Your task to perform on an android device: turn off data saver in the chrome app Image 0: 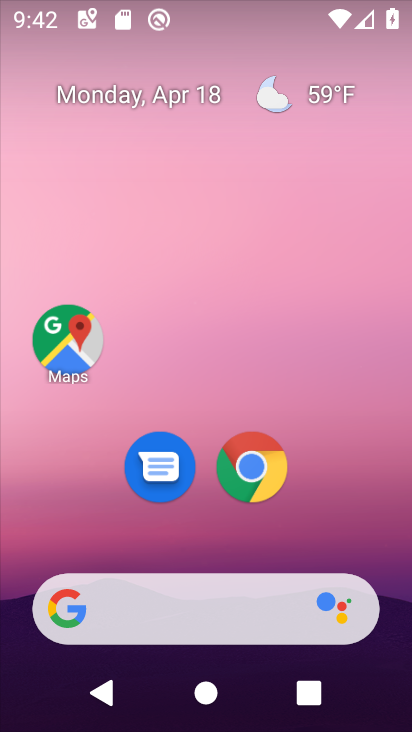
Step 0: click (263, 453)
Your task to perform on an android device: turn off data saver in the chrome app Image 1: 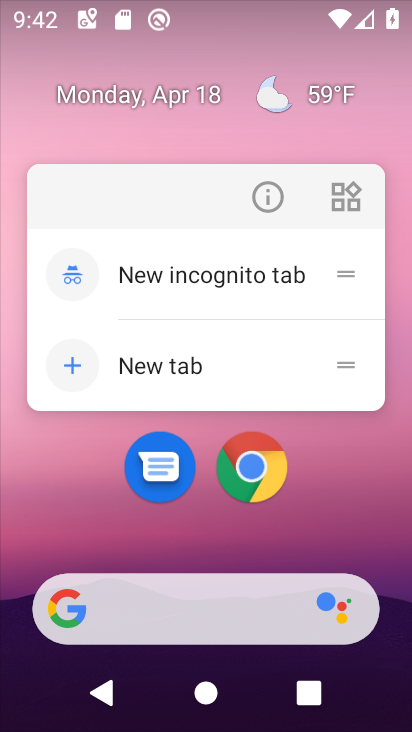
Step 1: click (252, 444)
Your task to perform on an android device: turn off data saver in the chrome app Image 2: 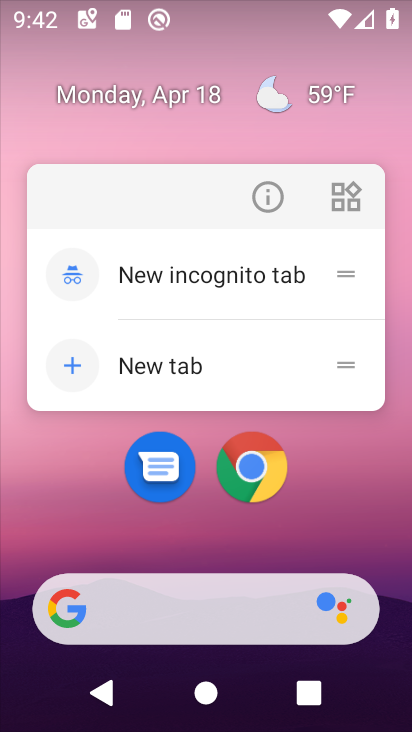
Step 2: click (264, 475)
Your task to perform on an android device: turn off data saver in the chrome app Image 3: 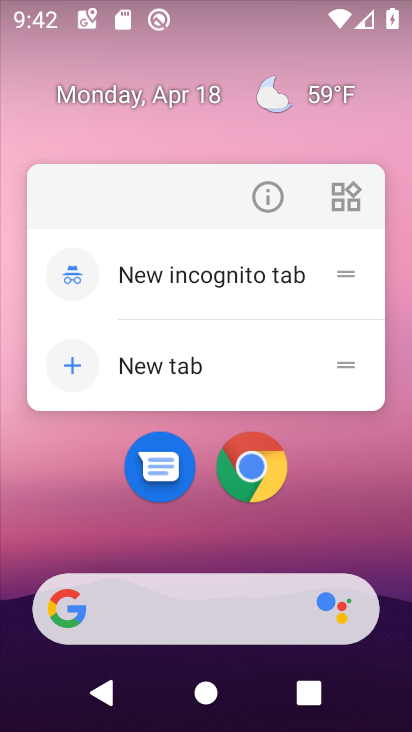
Step 3: click (252, 458)
Your task to perform on an android device: turn off data saver in the chrome app Image 4: 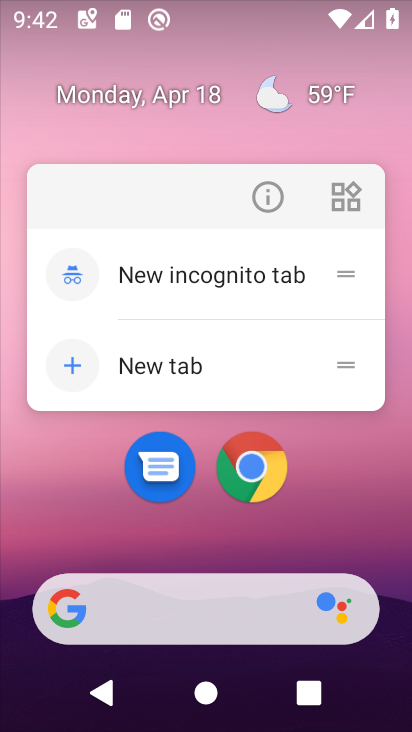
Step 4: click (266, 475)
Your task to perform on an android device: turn off data saver in the chrome app Image 5: 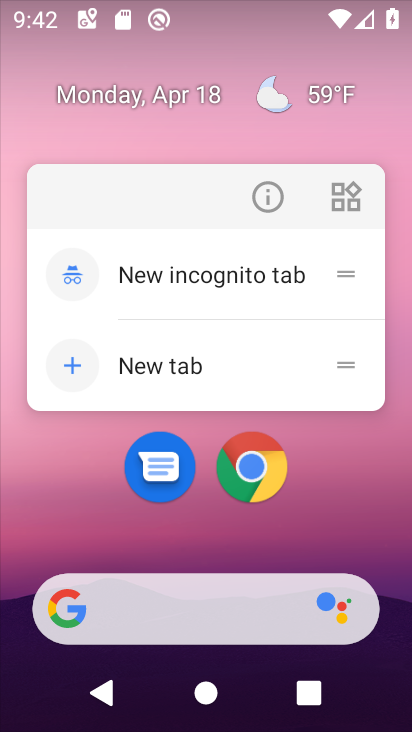
Step 5: click (254, 460)
Your task to perform on an android device: turn off data saver in the chrome app Image 6: 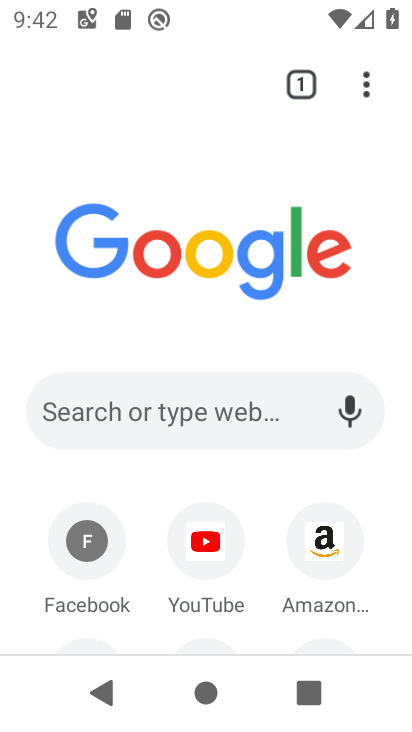
Step 6: drag from (364, 82) to (151, 505)
Your task to perform on an android device: turn off data saver in the chrome app Image 7: 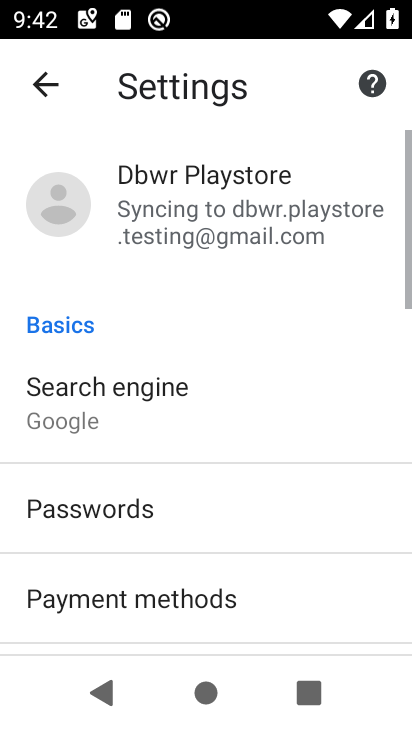
Step 7: drag from (171, 581) to (296, 79)
Your task to perform on an android device: turn off data saver in the chrome app Image 8: 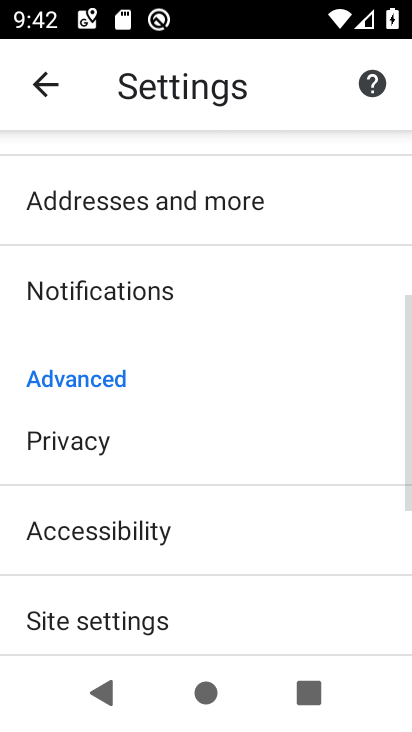
Step 8: drag from (206, 566) to (281, 202)
Your task to perform on an android device: turn off data saver in the chrome app Image 9: 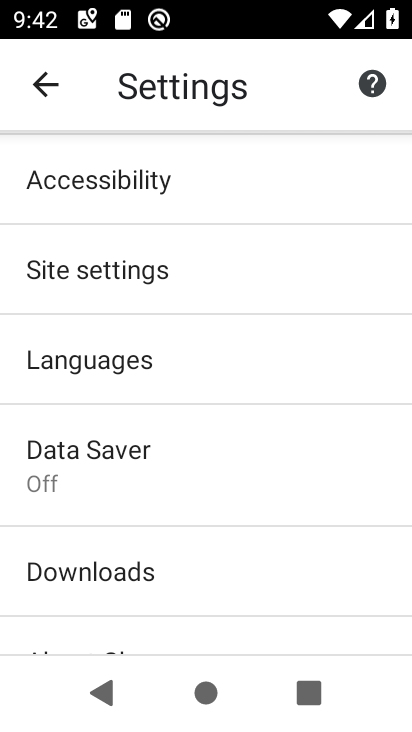
Step 9: click (90, 275)
Your task to perform on an android device: turn off data saver in the chrome app Image 10: 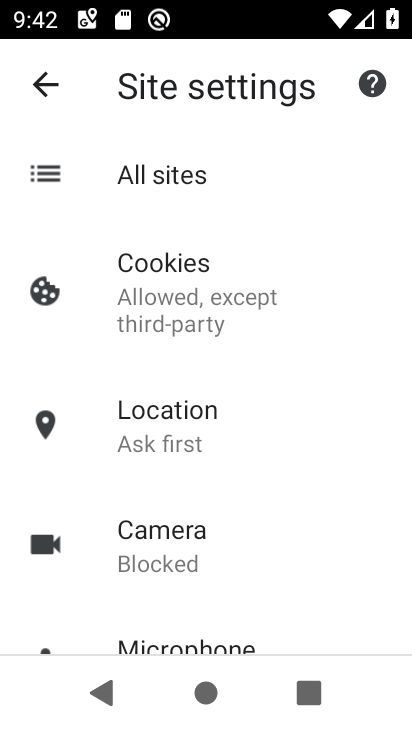
Step 10: drag from (170, 610) to (327, 108)
Your task to perform on an android device: turn off data saver in the chrome app Image 11: 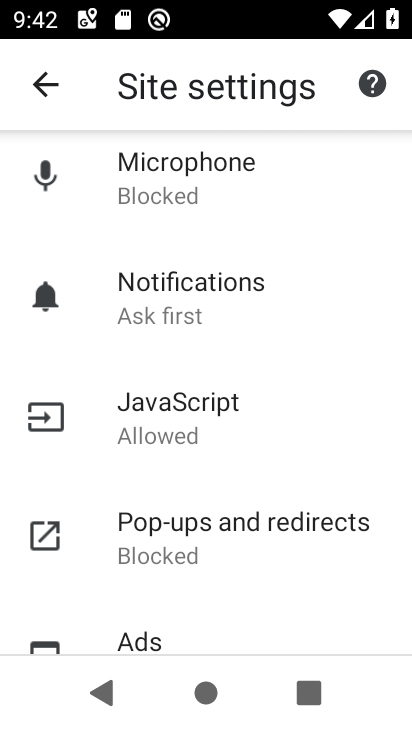
Step 11: drag from (245, 233) to (180, 697)
Your task to perform on an android device: turn off data saver in the chrome app Image 12: 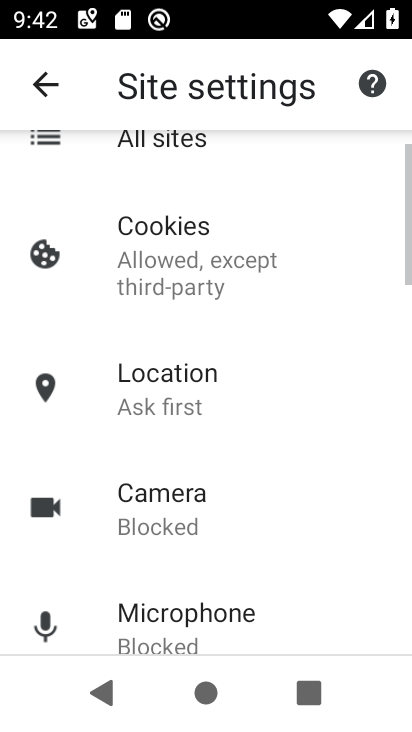
Step 12: drag from (234, 210) to (168, 627)
Your task to perform on an android device: turn off data saver in the chrome app Image 13: 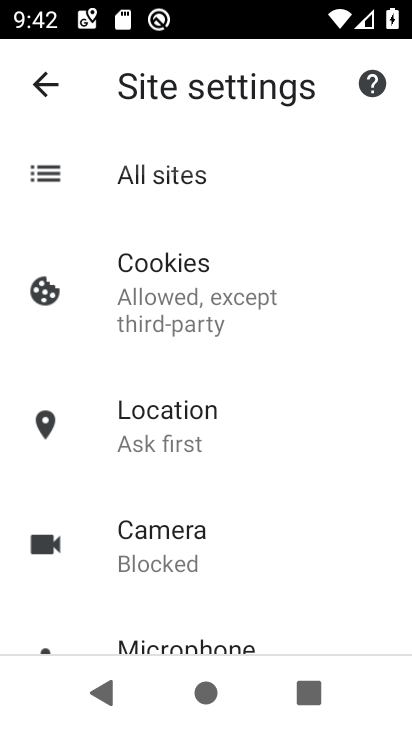
Step 13: click (48, 90)
Your task to perform on an android device: turn off data saver in the chrome app Image 14: 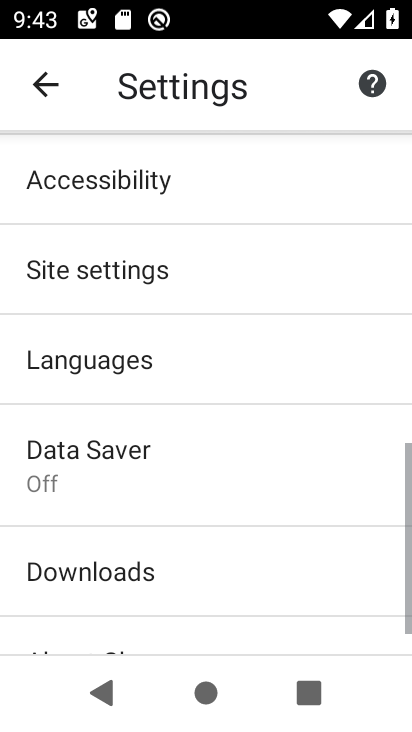
Step 14: click (131, 456)
Your task to perform on an android device: turn off data saver in the chrome app Image 15: 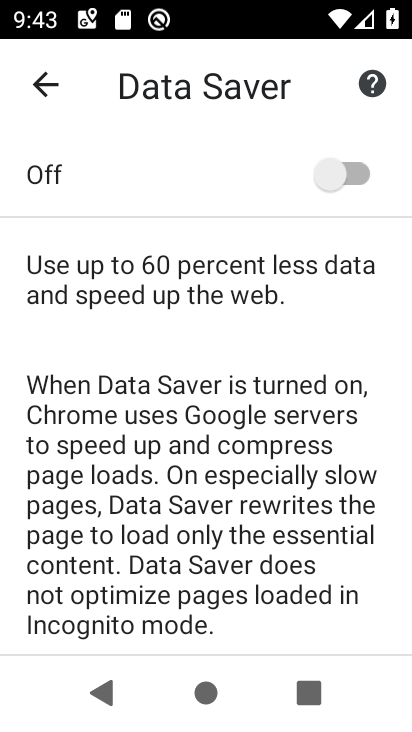
Step 15: task complete